Your task to perform on an android device: Search for 5 star sushi restaurants on Maps Image 0: 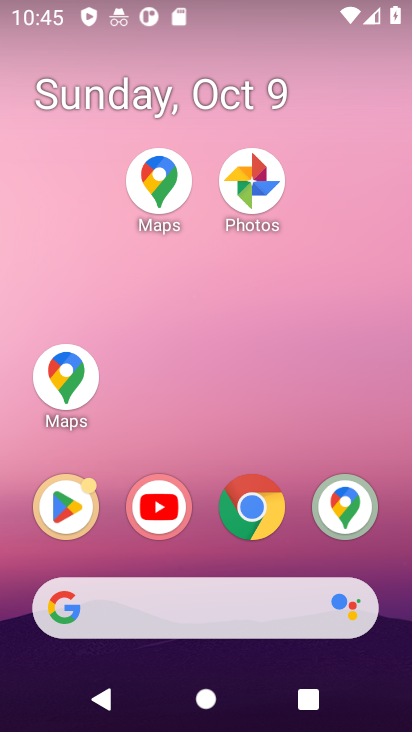
Step 0: drag from (204, 559) to (229, 80)
Your task to perform on an android device: Search for 5 star sushi restaurants on Maps Image 1: 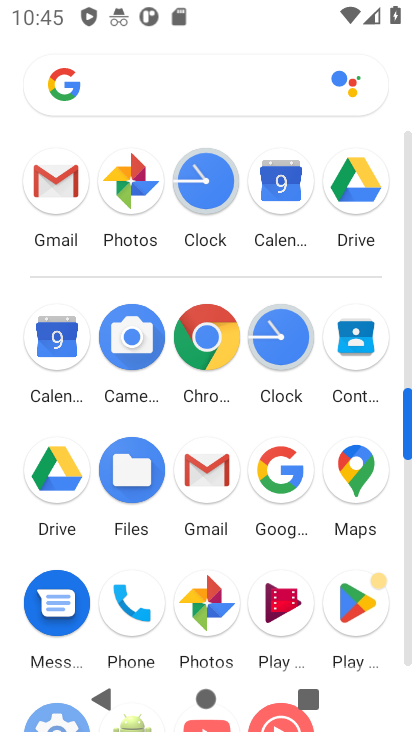
Step 1: click (340, 478)
Your task to perform on an android device: Search for 5 star sushi restaurants on Maps Image 2: 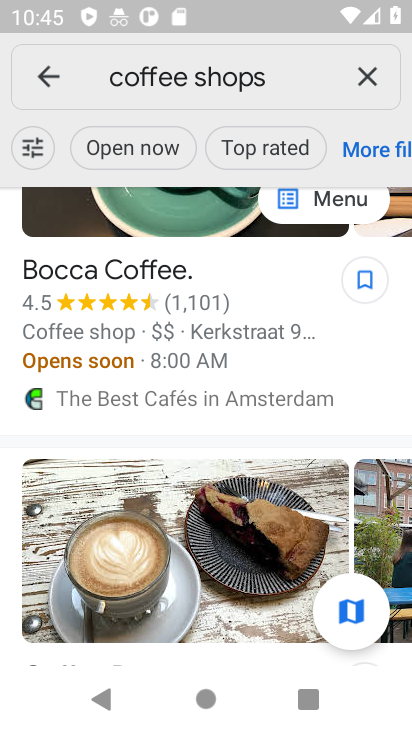
Step 2: click (176, 73)
Your task to perform on an android device: Search for 5 star sushi restaurants on Maps Image 3: 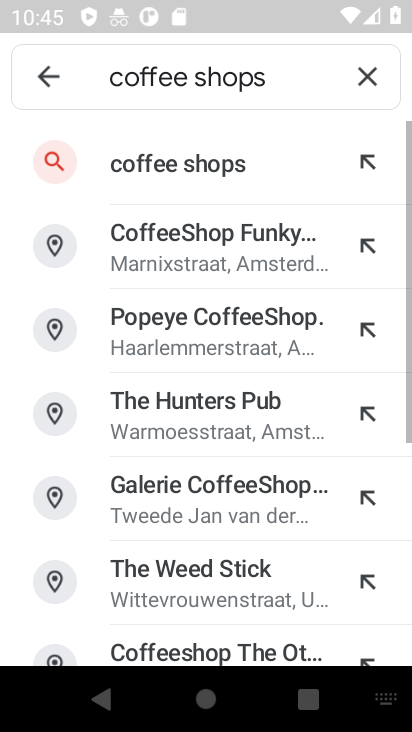
Step 3: click (374, 65)
Your task to perform on an android device: Search for 5 star sushi restaurants on Maps Image 4: 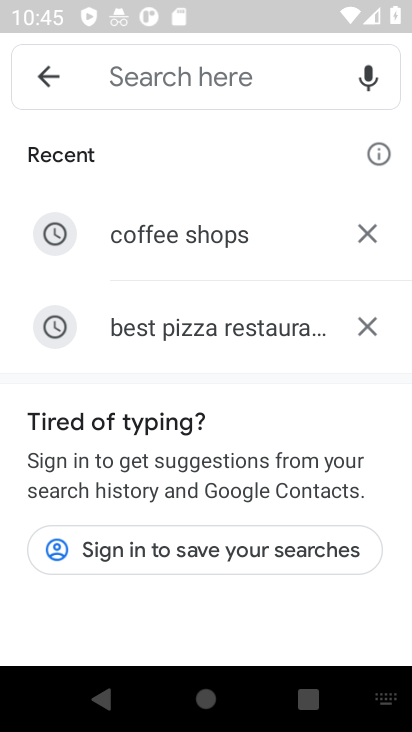
Step 4: type "5 star sushi restaurants"
Your task to perform on an android device: Search for 5 star sushi restaurants on Maps Image 5: 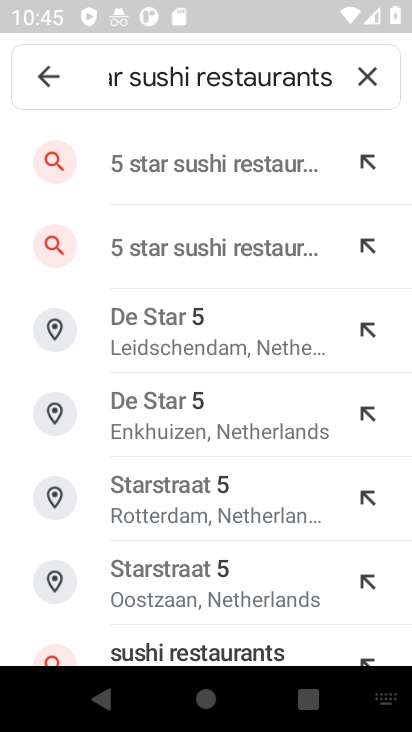
Step 5: press enter
Your task to perform on an android device: Search for 5 star sushi restaurants on Maps Image 6: 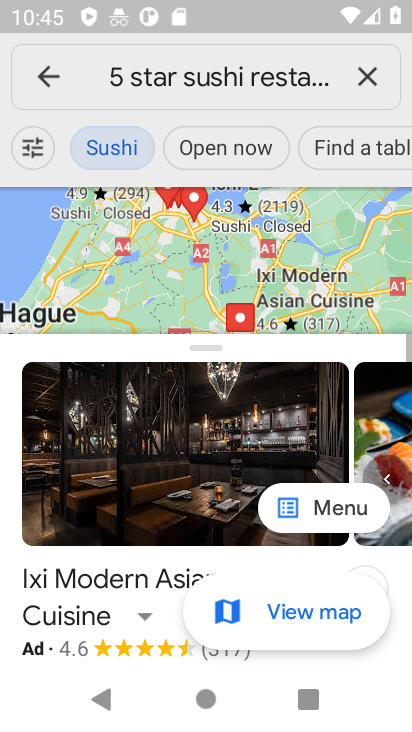
Step 6: task complete